Your task to perform on an android device: Show me popular videos on Youtube Image 0: 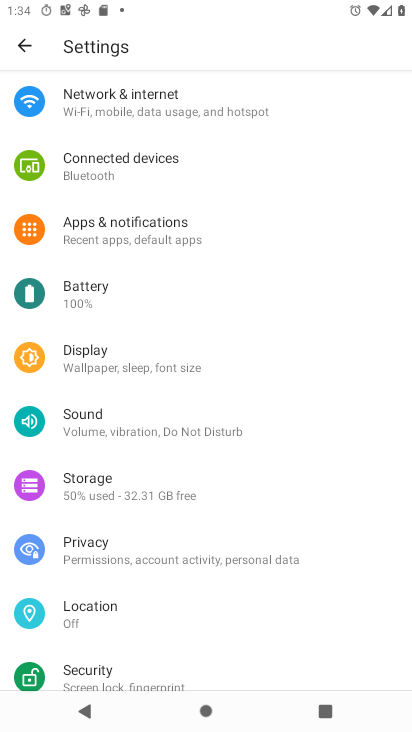
Step 0: press home button
Your task to perform on an android device: Show me popular videos on Youtube Image 1: 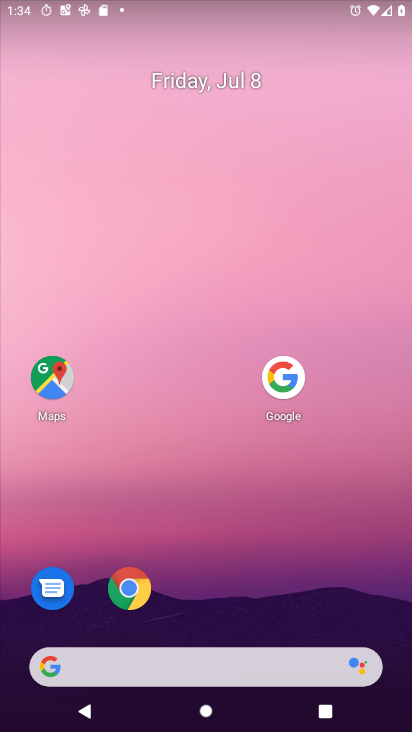
Step 1: drag from (245, 650) to (357, 188)
Your task to perform on an android device: Show me popular videos on Youtube Image 2: 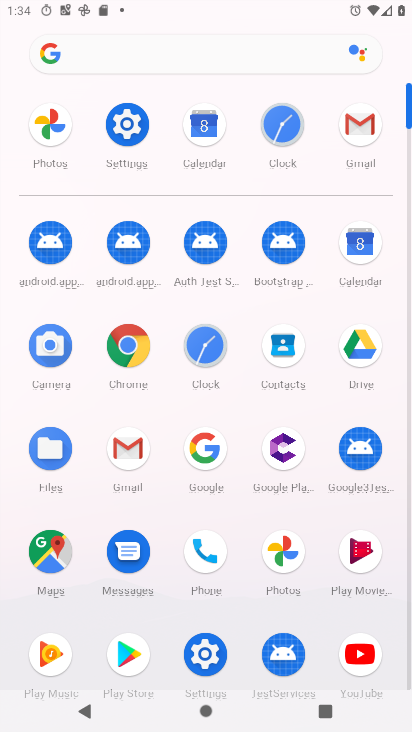
Step 2: click (359, 663)
Your task to perform on an android device: Show me popular videos on Youtube Image 3: 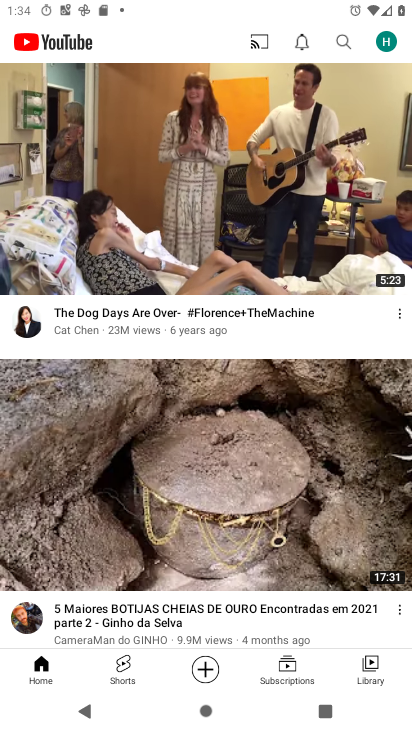
Step 3: task complete